Your task to perform on an android device: turn off notifications settings in the gmail app Image 0: 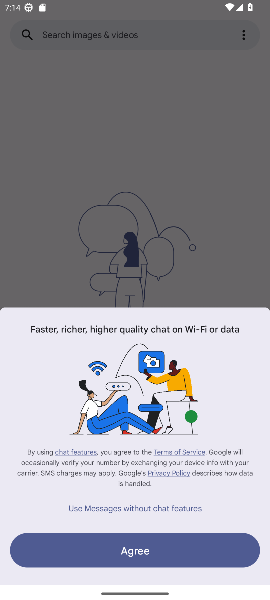
Step 0: press home button
Your task to perform on an android device: turn off notifications settings in the gmail app Image 1: 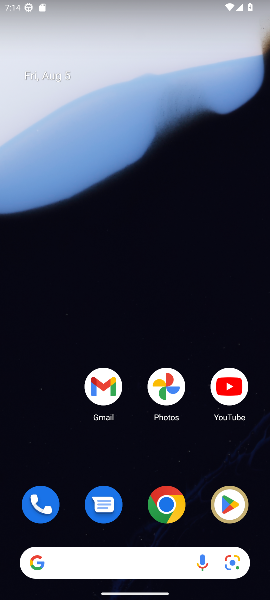
Step 1: click (114, 406)
Your task to perform on an android device: turn off notifications settings in the gmail app Image 2: 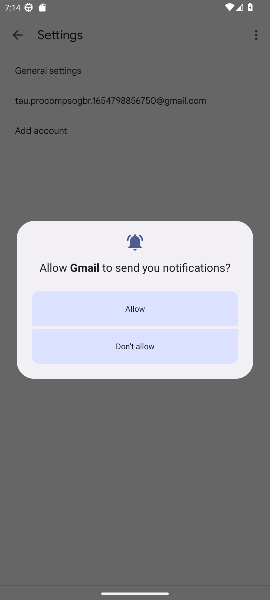
Step 2: click (141, 308)
Your task to perform on an android device: turn off notifications settings in the gmail app Image 3: 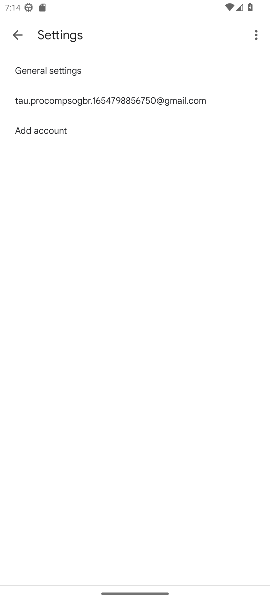
Step 3: click (47, 101)
Your task to perform on an android device: turn off notifications settings in the gmail app Image 4: 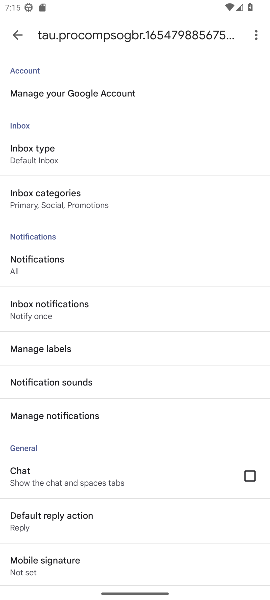
Step 4: click (75, 410)
Your task to perform on an android device: turn off notifications settings in the gmail app Image 5: 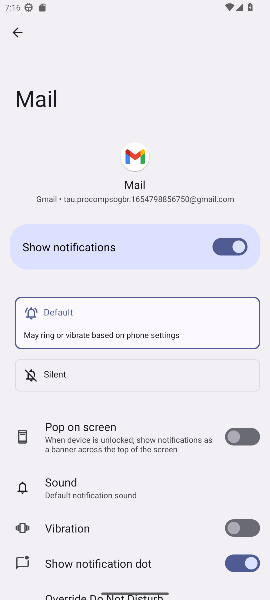
Step 5: click (229, 246)
Your task to perform on an android device: turn off notifications settings in the gmail app Image 6: 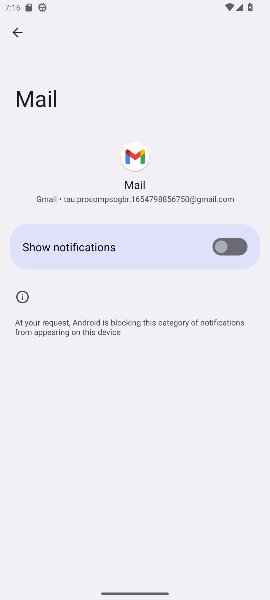
Step 6: task complete